Your task to perform on an android device: check out phone information Image 0: 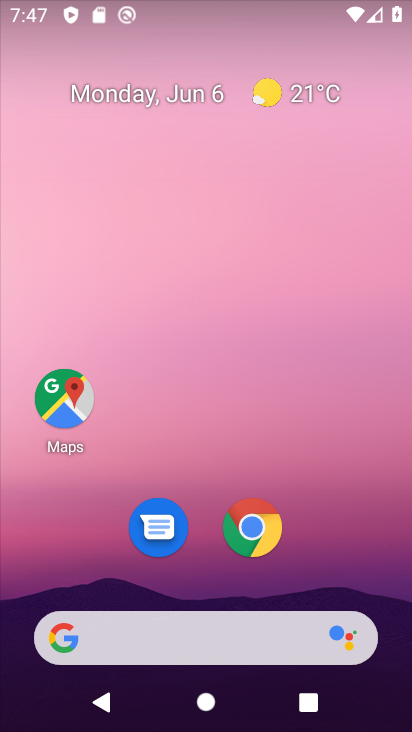
Step 0: drag from (228, 554) to (256, 146)
Your task to perform on an android device: check out phone information Image 1: 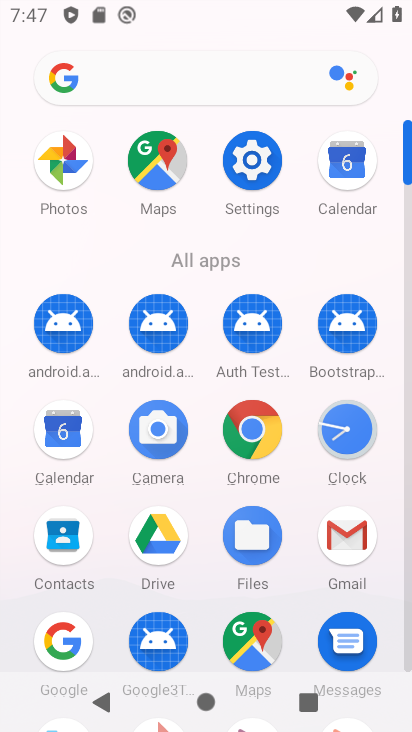
Step 1: click (248, 184)
Your task to perform on an android device: check out phone information Image 2: 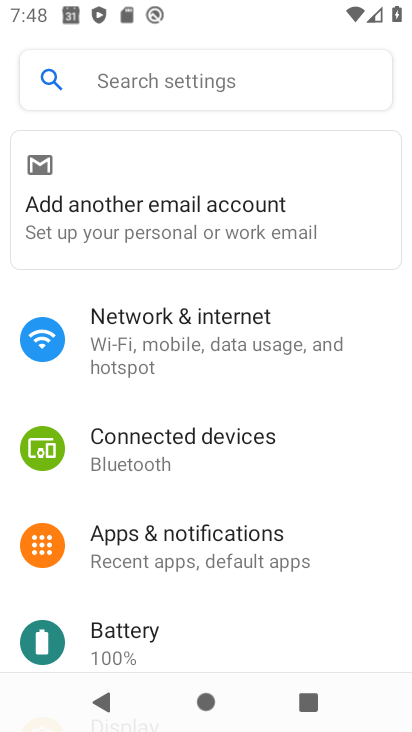
Step 2: drag from (269, 335) to (212, 13)
Your task to perform on an android device: check out phone information Image 3: 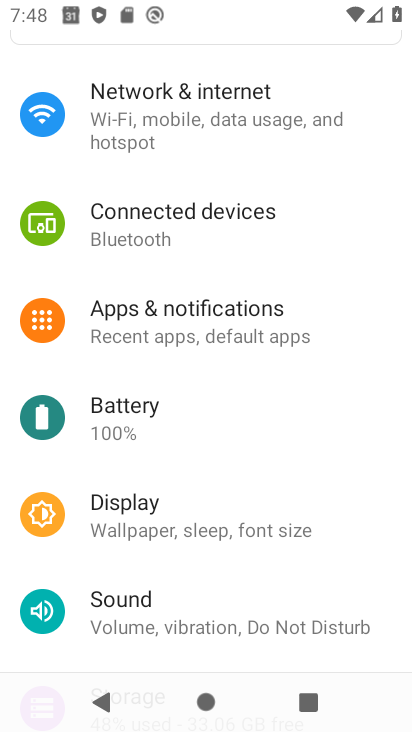
Step 3: drag from (179, 404) to (214, 192)
Your task to perform on an android device: check out phone information Image 4: 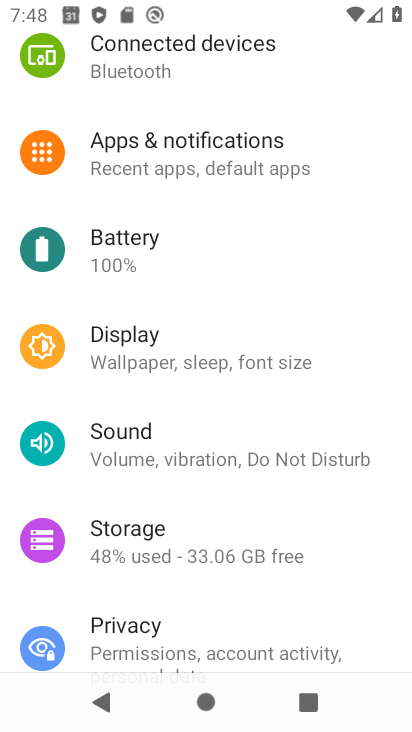
Step 4: drag from (205, 358) to (241, 167)
Your task to perform on an android device: check out phone information Image 5: 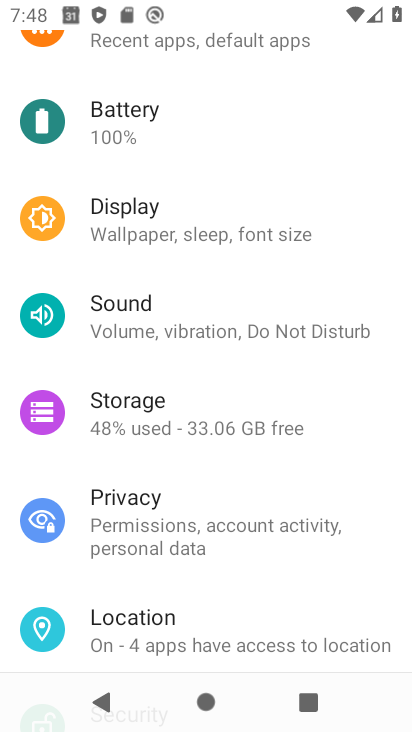
Step 5: drag from (181, 486) to (219, 197)
Your task to perform on an android device: check out phone information Image 6: 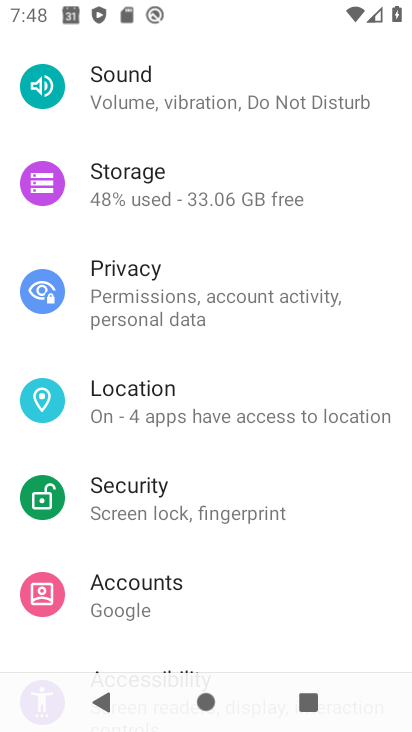
Step 6: drag from (156, 495) to (198, 203)
Your task to perform on an android device: check out phone information Image 7: 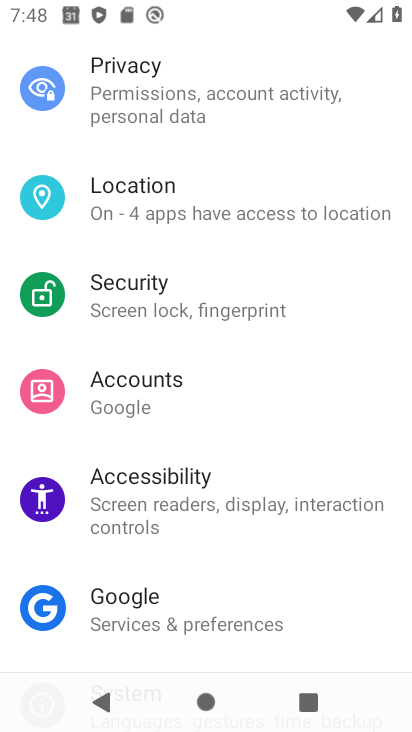
Step 7: drag from (164, 515) to (212, 225)
Your task to perform on an android device: check out phone information Image 8: 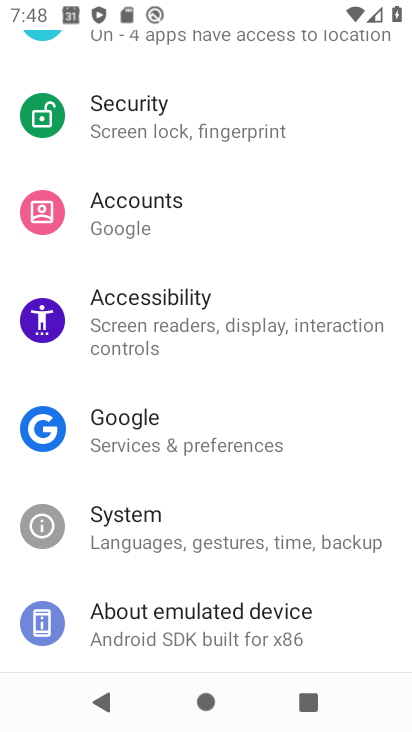
Step 8: drag from (204, 520) to (226, 276)
Your task to perform on an android device: check out phone information Image 9: 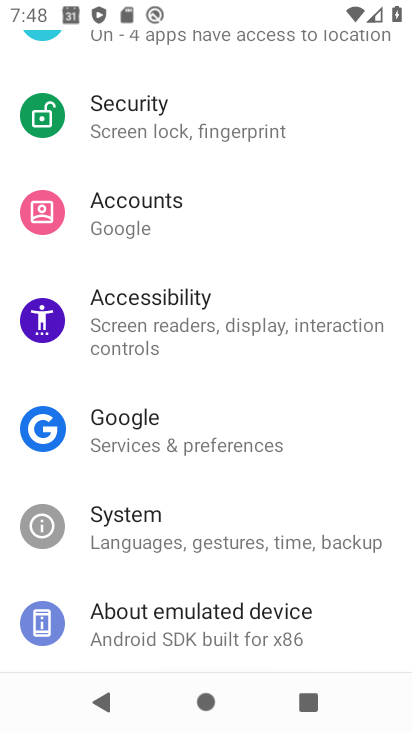
Step 9: click (189, 633)
Your task to perform on an android device: check out phone information Image 10: 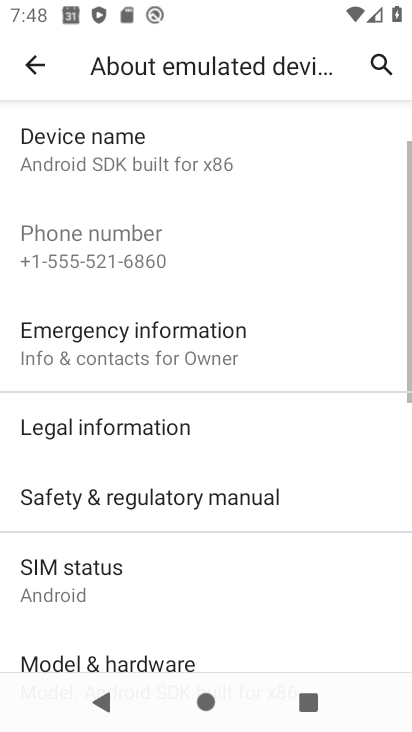
Step 10: task complete